Your task to perform on an android device: Open ESPN.com Image 0: 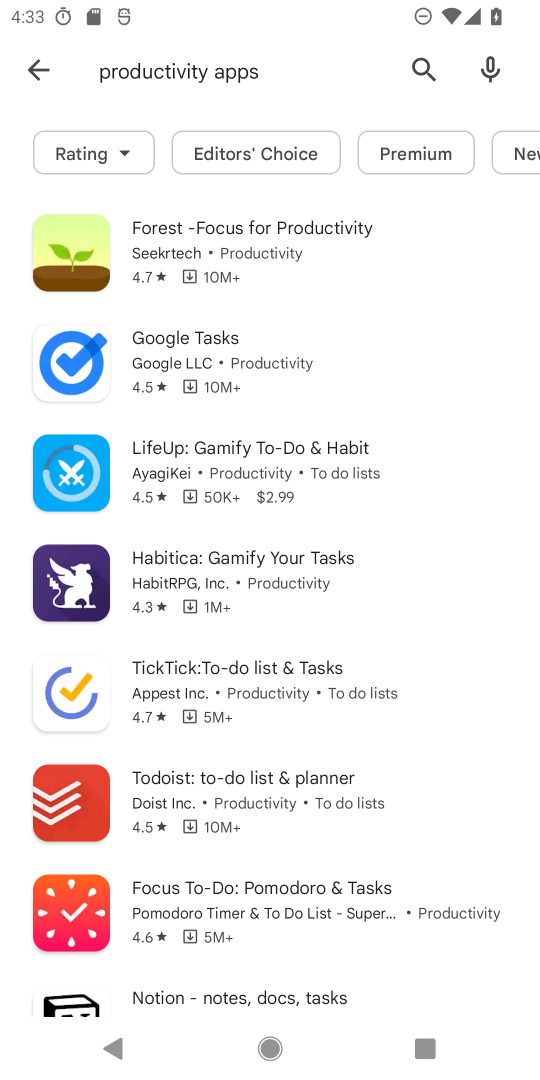
Step 0: press home button
Your task to perform on an android device: Open ESPN.com Image 1: 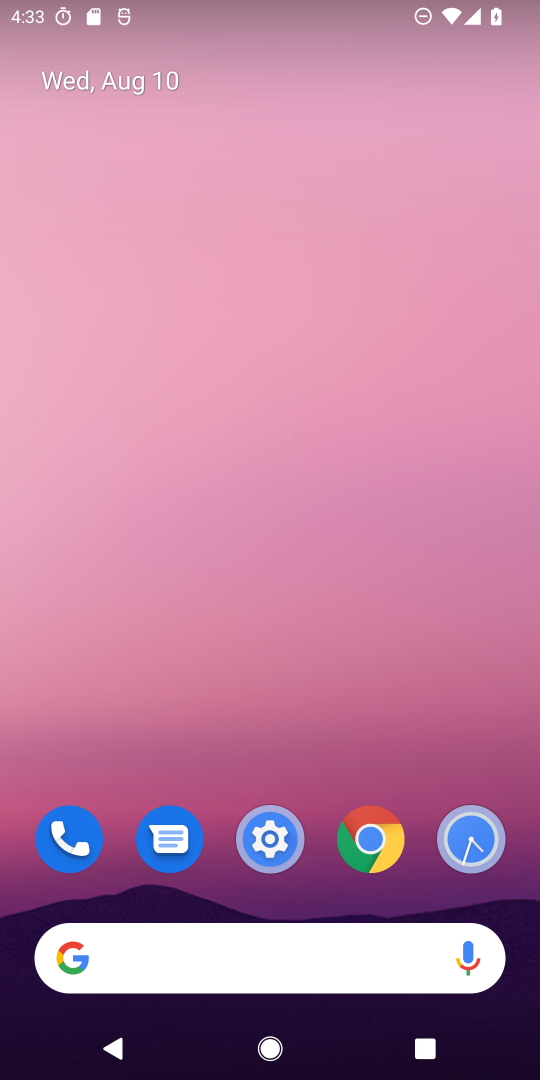
Step 1: click (155, 967)
Your task to perform on an android device: Open ESPN.com Image 2: 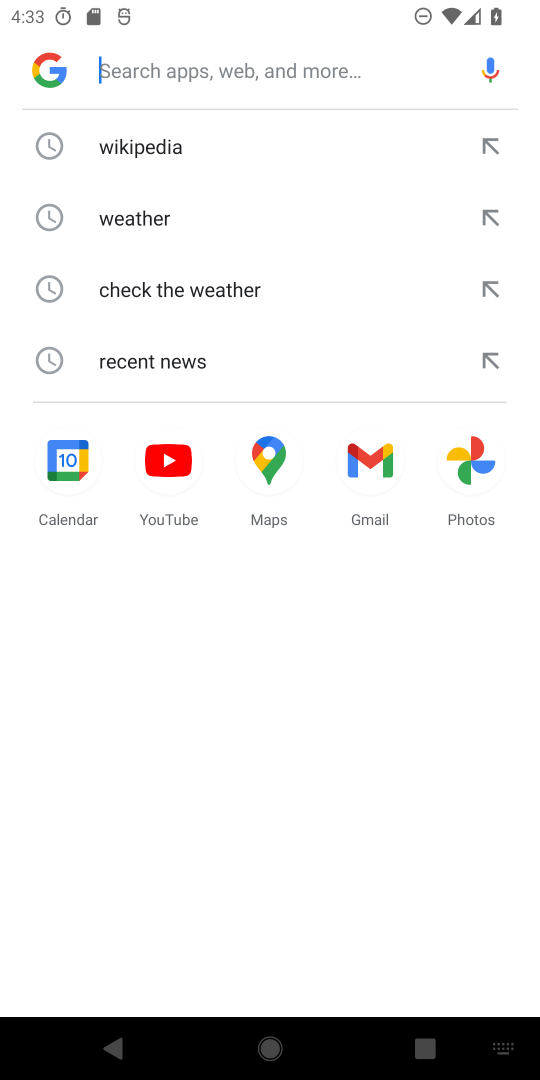
Step 2: type "ESPN.com"
Your task to perform on an android device: Open ESPN.com Image 3: 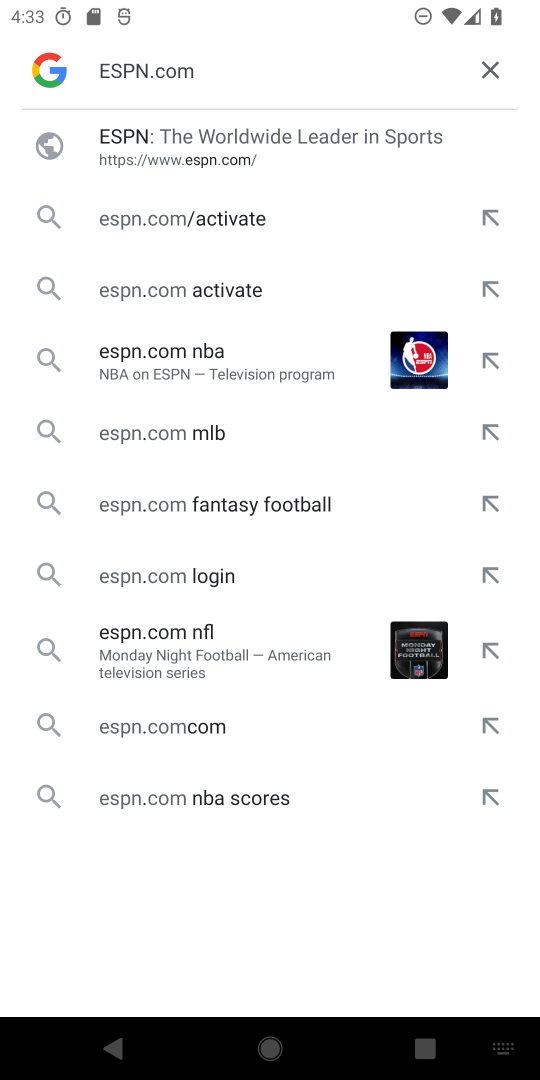
Step 3: click (128, 127)
Your task to perform on an android device: Open ESPN.com Image 4: 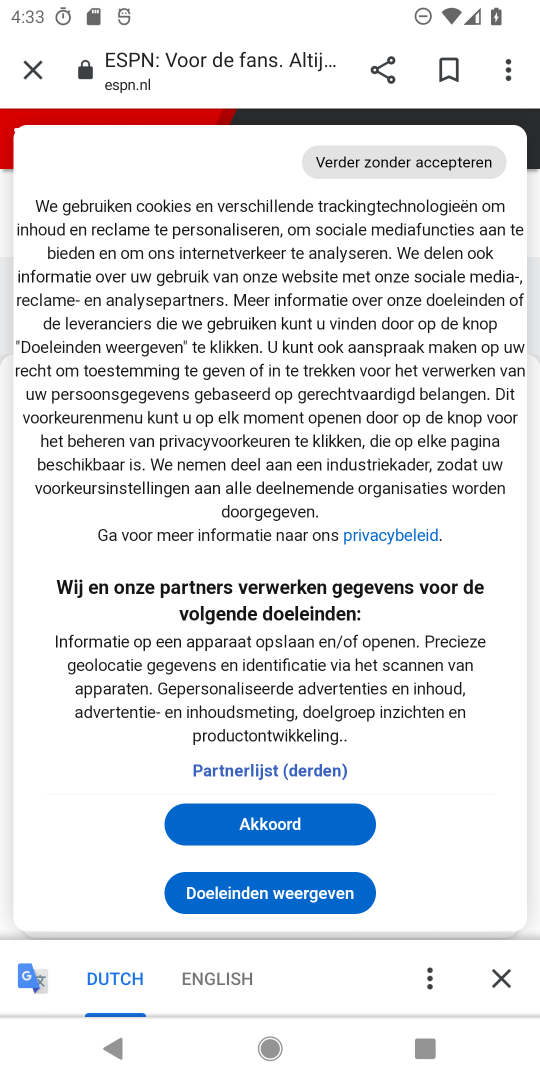
Step 4: task complete